Your task to perform on an android device: open app "Duolingo: language lessons" Image 0: 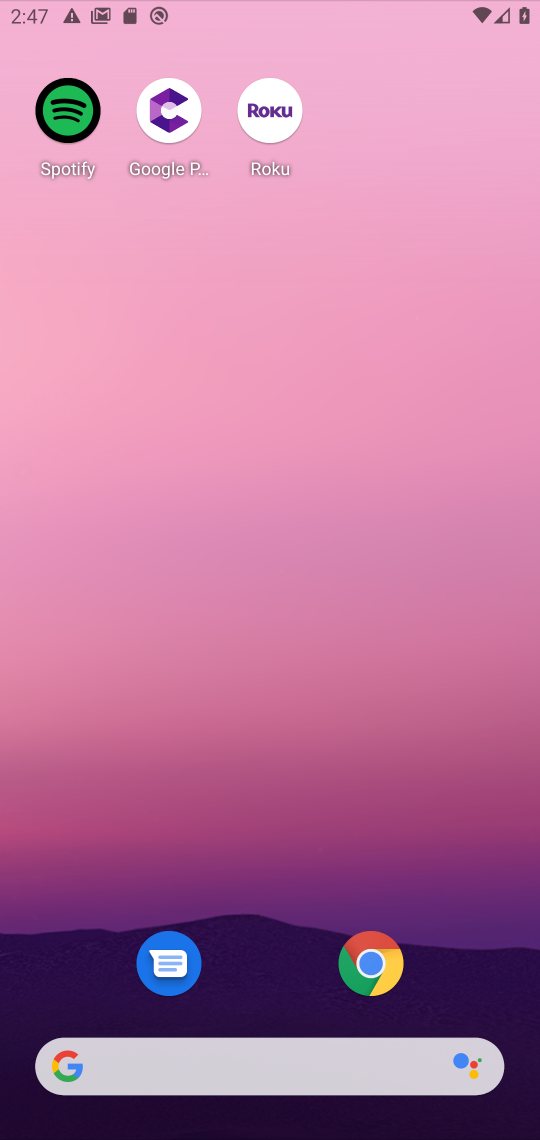
Step 0: press home button
Your task to perform on an android device: open app "Duolingo: language lessons" Image 1: 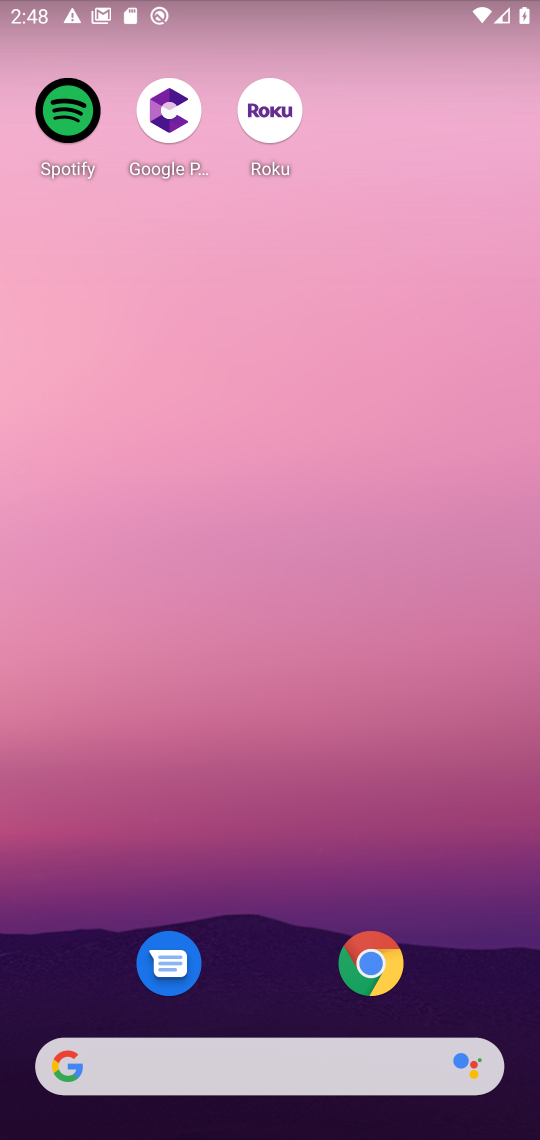
Step 1: drag from (280, 1028) to (295, 282)
Your task to perform on an android device: open app "Duolingo: language lessons" Image 2: 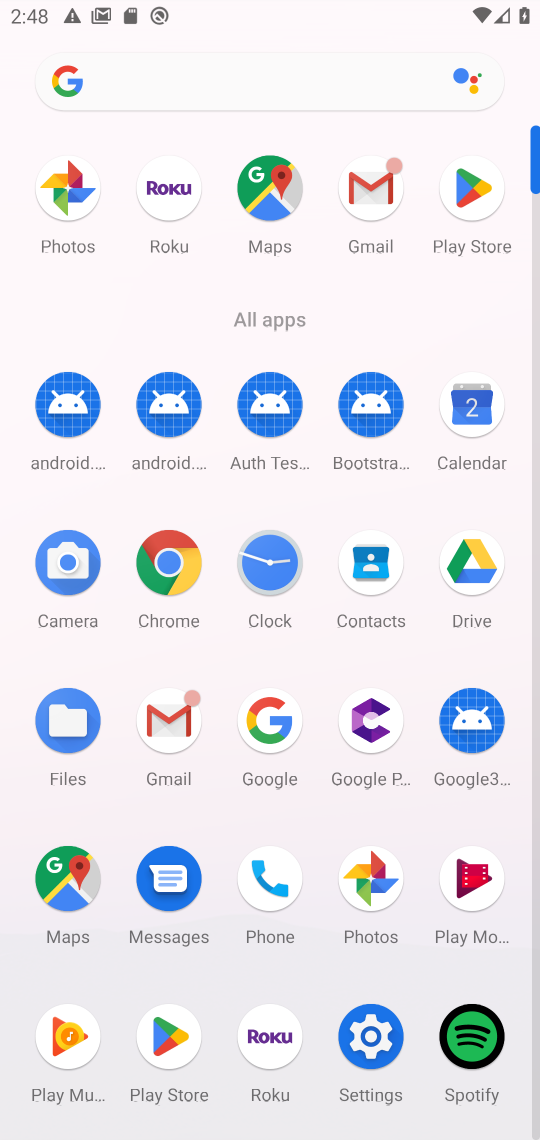
Step 2: click (462, 201)
Your task to perform on an android device: open app "Duolingo: language lessons" Image 3: 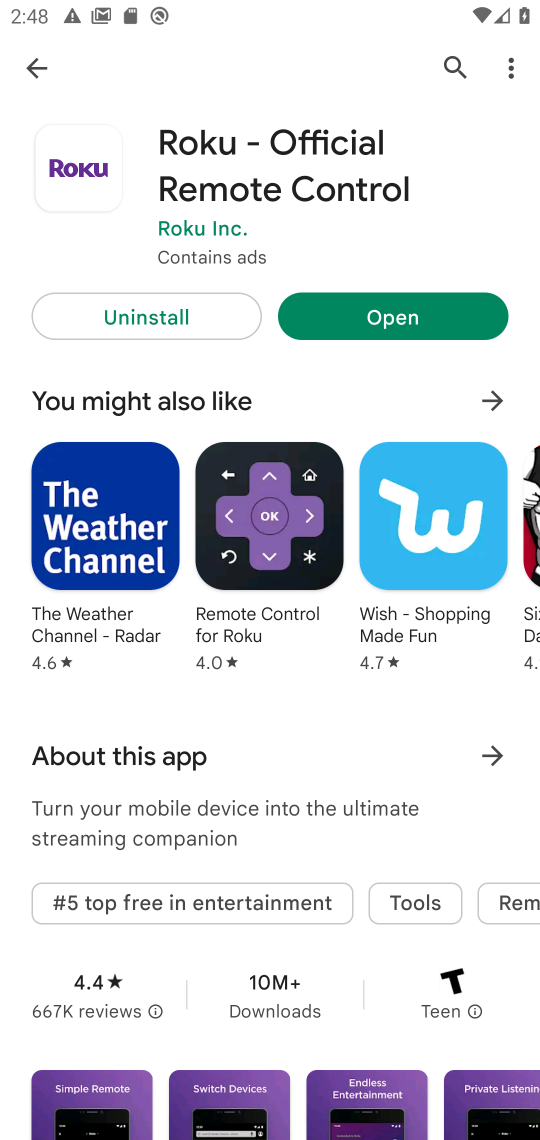
Step 3: click (450, 58)
Your task to perform on an android device: open app "Duolingo: language lessons" Image 4: 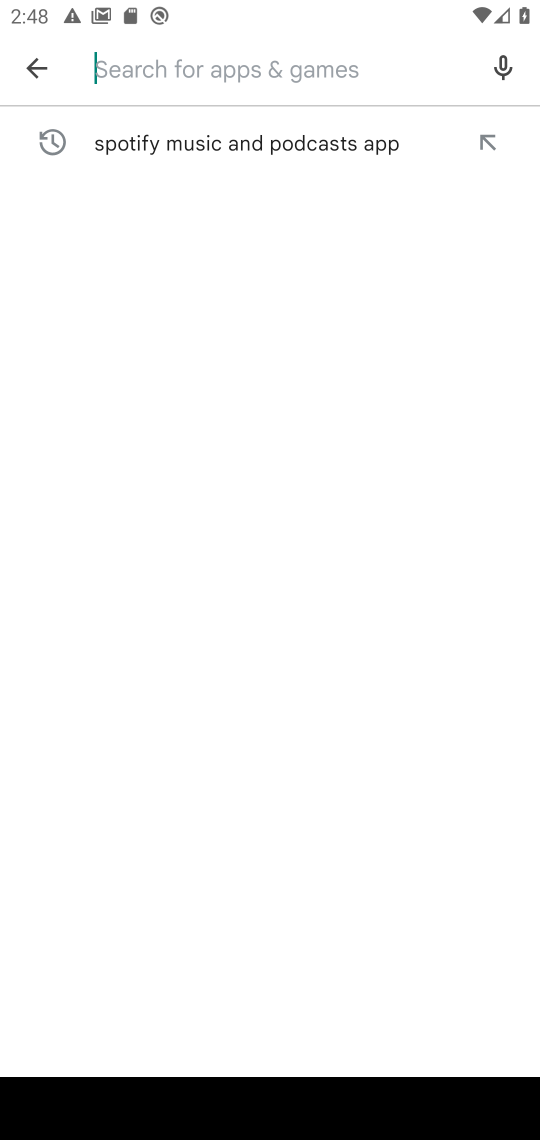
Step 4: type "Duolingo: language lessons"
Your task to perform on an android device: open app "Duolingo: language lessons" Image 5: 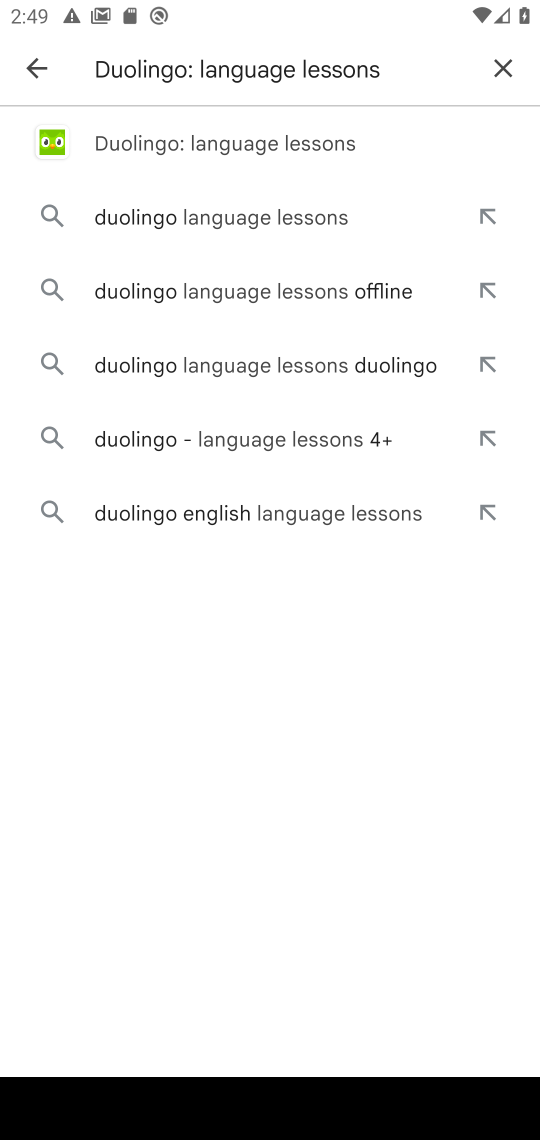
Step 5: click (195, 145)
Your task to perform on an android device: open app "Duolingo: language lessons" Image 6: 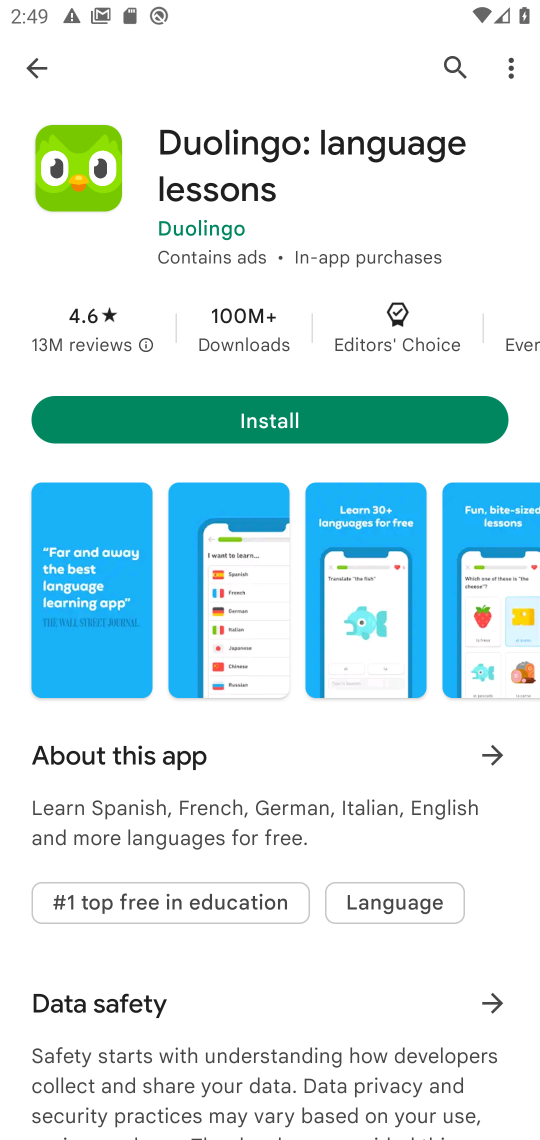
Step 6: click (227, 424)
Your task to perform on an android device: open app "Duolingo: language lessons" Image 7: 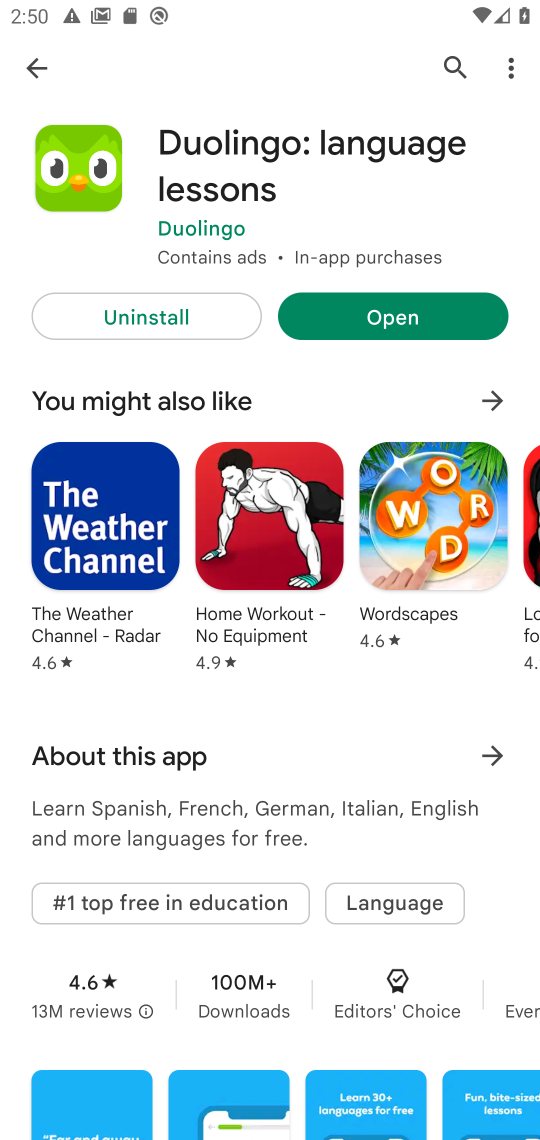
Step 7: click (389, 309)
Your task to perform on an android device: open app "Duolingo: language lessons" Image 8: 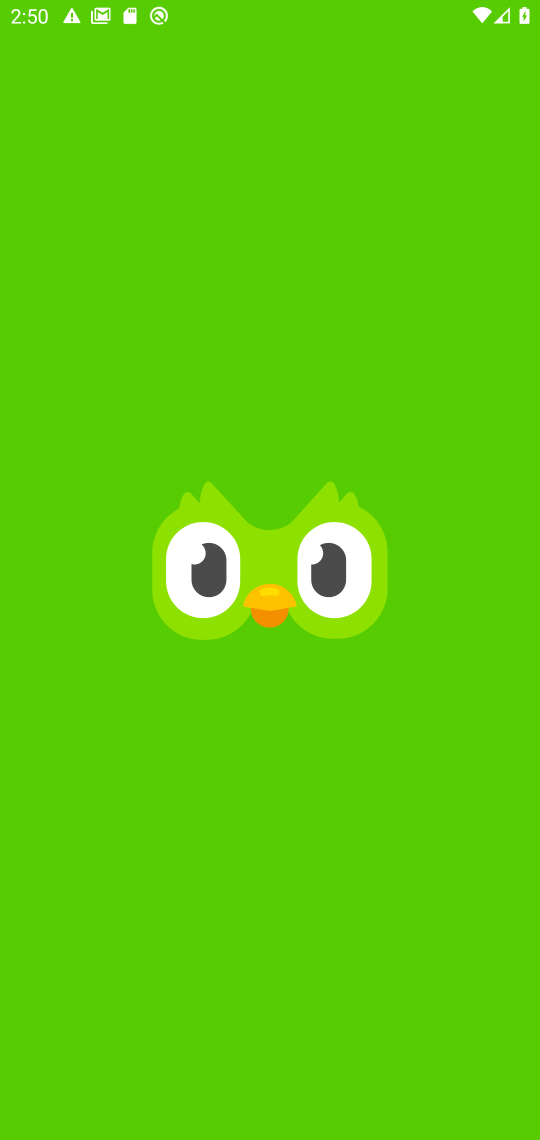
Step 8: task complete